Your task to perform on an android device: turn off javascript in the chrome app Image 0: 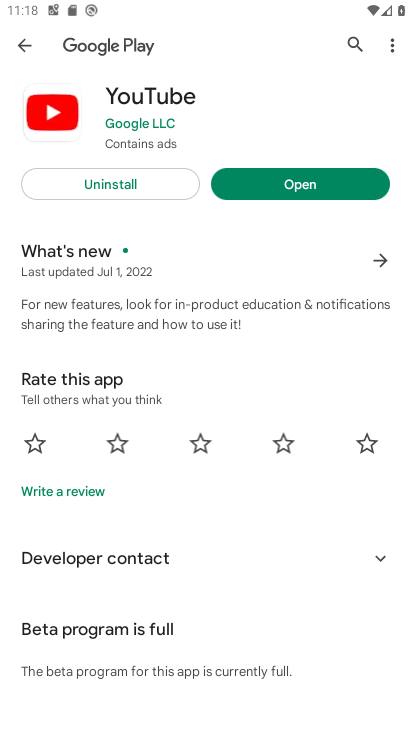
Step 0: press home button
Your task to perform on an android device: turn off javascript in the chrome app Image 1: 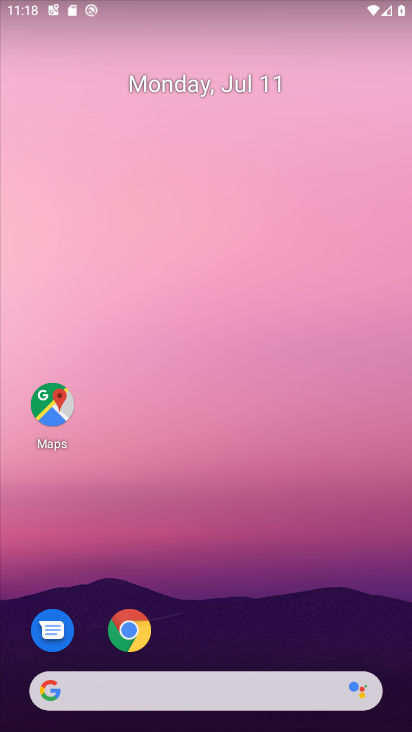
Step 1: drag from (247, 581) to (231, 138)
Your task to perform on an android device: turn off javascript in the chrome app Image 2: 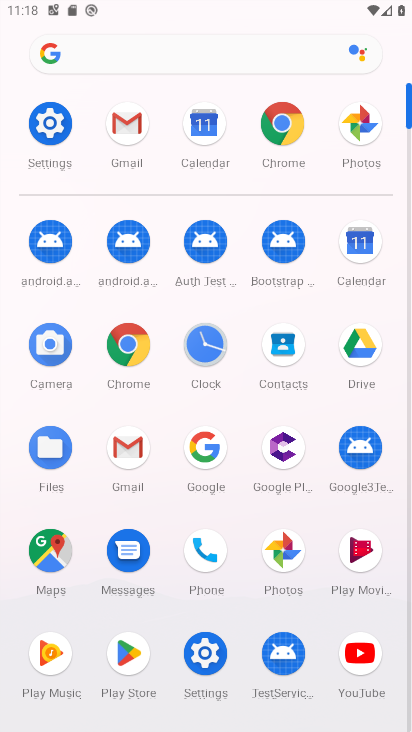
Step 2: click (131, 367)
Your task to perform on an android device: turn off javascript in the chrome app Image 3: 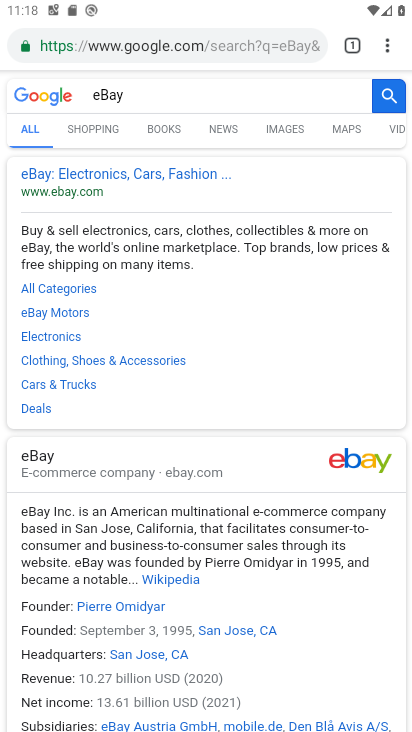
Step 3: click (380, 49)
Your task to perform on an android device: turn off javascript in the chrome app Image 4: 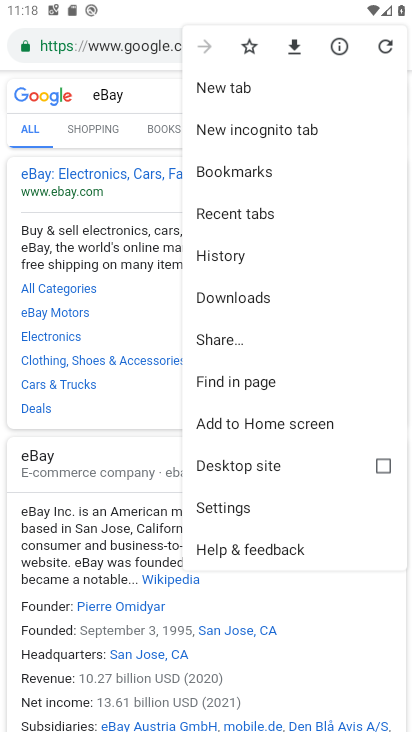
Step 4: click (238, 516)
Your task to perform on an android device: turn off javascript in the chrome app Image 5: 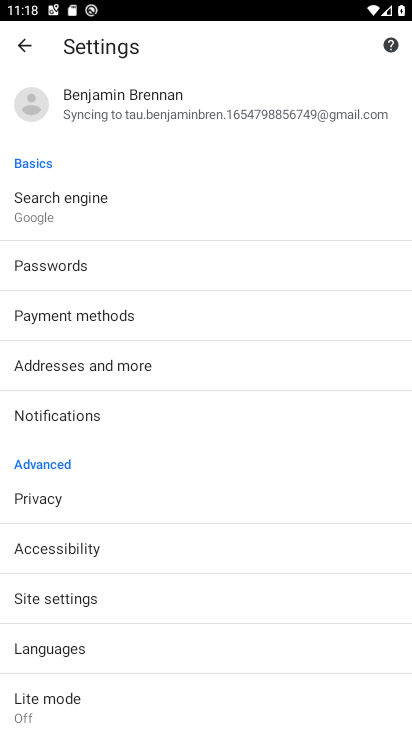
Step 5: click (79, 606)
Your task to perform on an android device: turn off javascript in the chrome app Image 6: 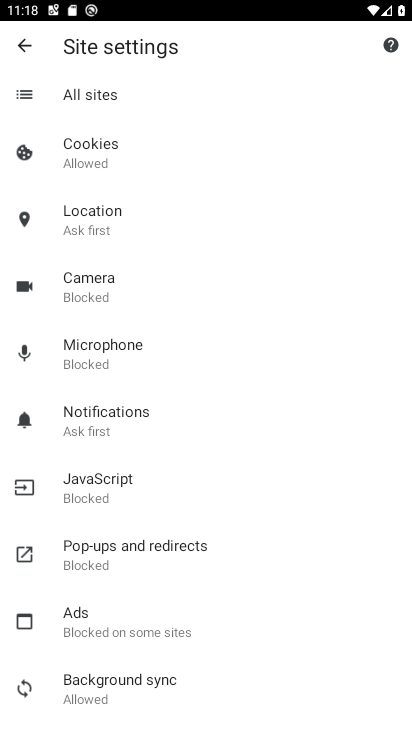
Step 6: click (88, 499)
Your task to perform on an android device: turn off javascript in the chrome app Image 7: 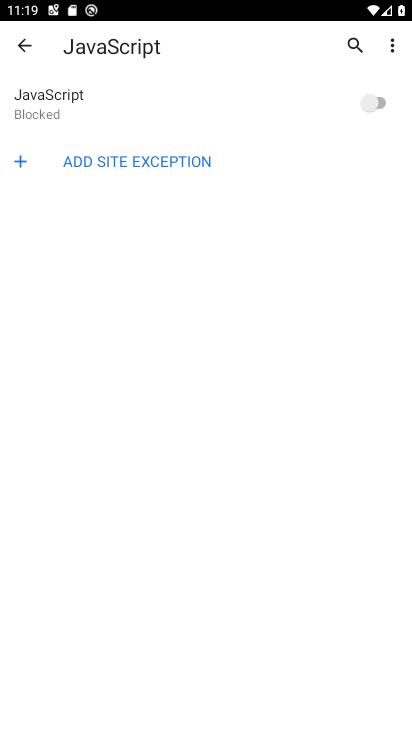
Step 7: task complete